Your task to perform on an android device: Open Google Maps and go to "Timeline" Image 0: 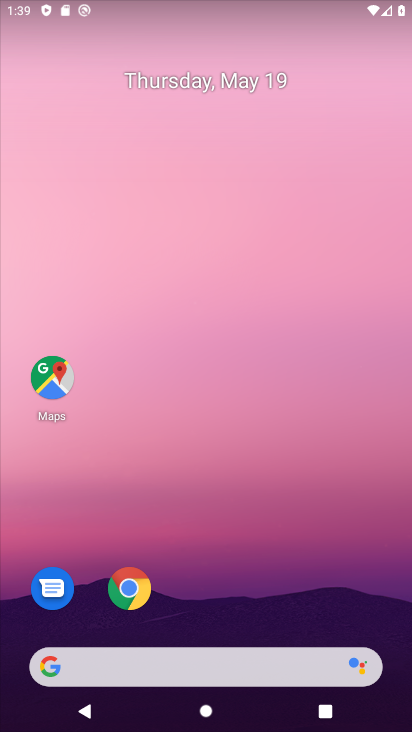
Step 0: click (45, 380)
Your task to perform on an android device: Open Google Maps and go to "Timeline" Image 1: 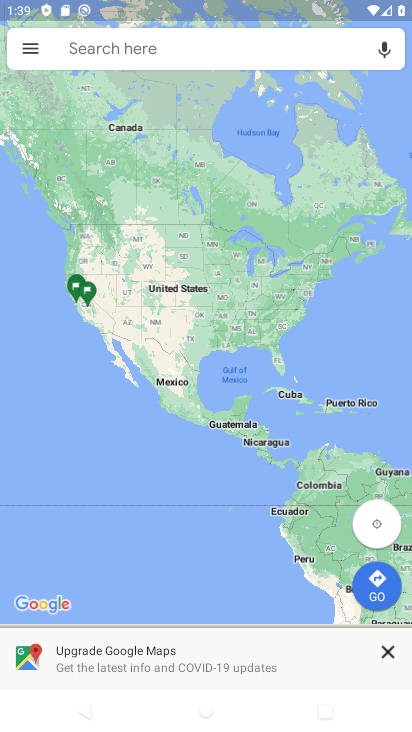
Step 1: click (26, 29)
Your task to perform on an android device: Open Google Maps and go to "Timeline" Image 2: 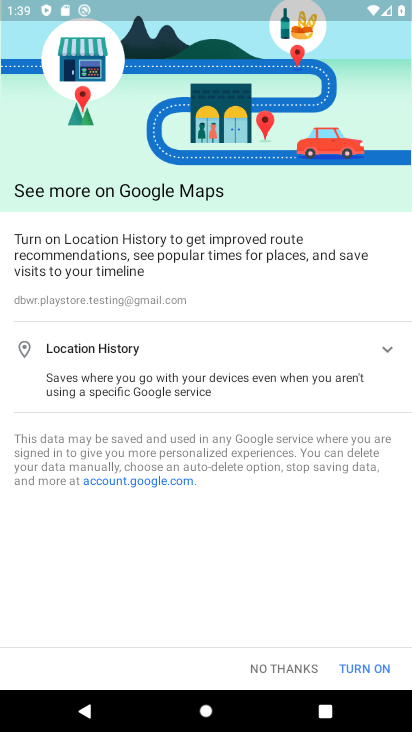
Step 2: click (265, 668)
Your task to perform on an android device: Open Google Maps and go to "Timeline" Image 3: 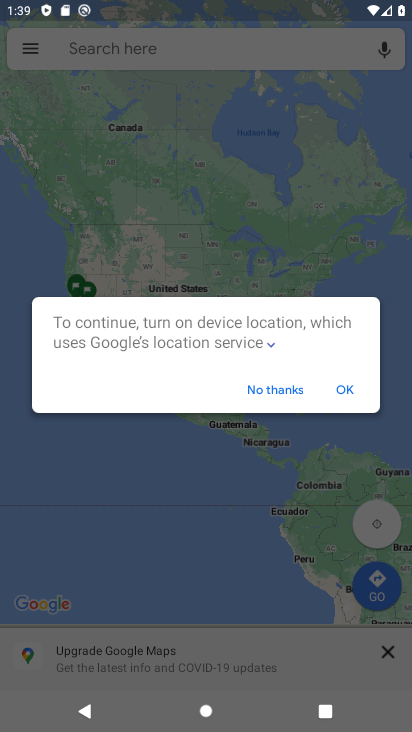
Step 3: click (275, 385)
Your task to perform on an android device: Open Google Maps and go to "Timeline" Image 4: 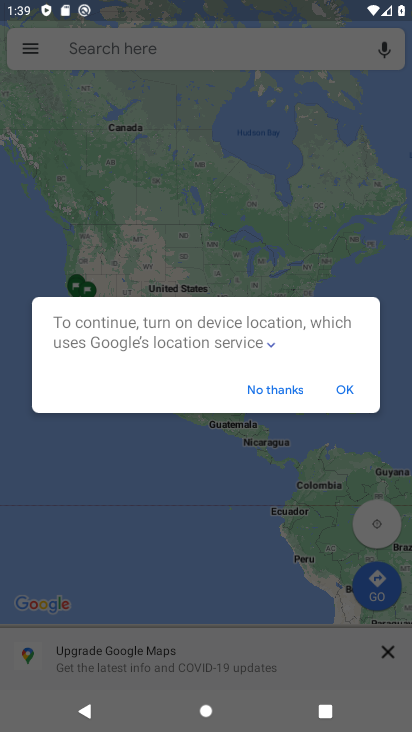
Step 4: click (261, 391)
Your task to perform on an android device: Open Google Maps and go to "Timeline" Image 5: 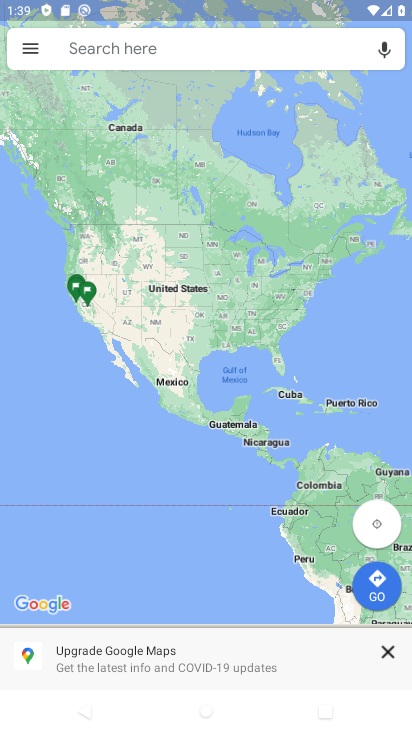
Step 5: click (33, 55)
Your task to perform on an android device: Open Google Maps and go to "Timeline" Image 6: 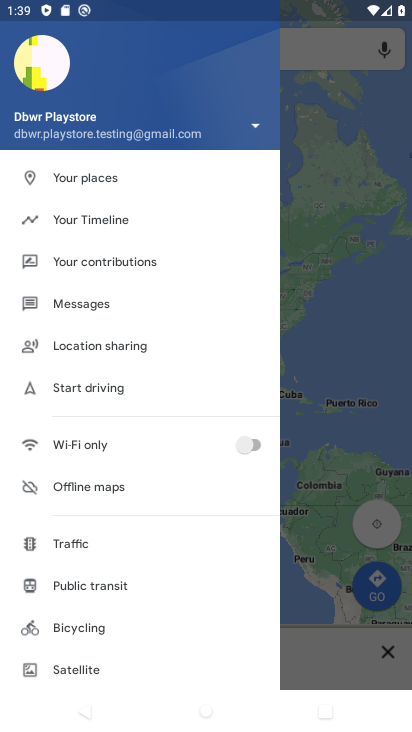
Step 6: click (112, 223)
Your task to perform on an android device: Open Google Maps and go to "Timeline" Image 7: 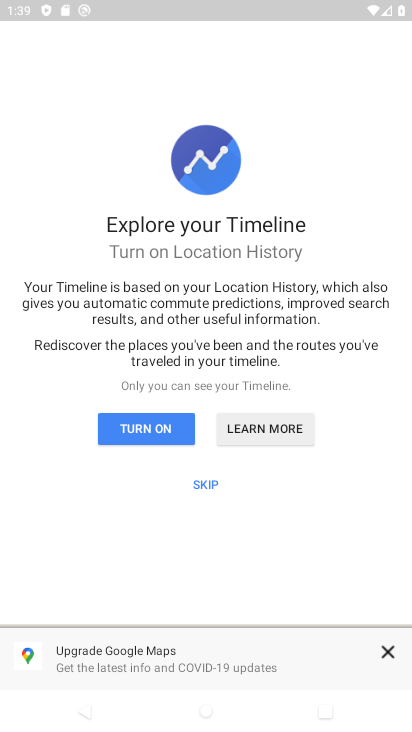
Step 7: click (192, 478)
Your task to perform on an android device: Open Google Maps and go to "Timeline" Image 8: 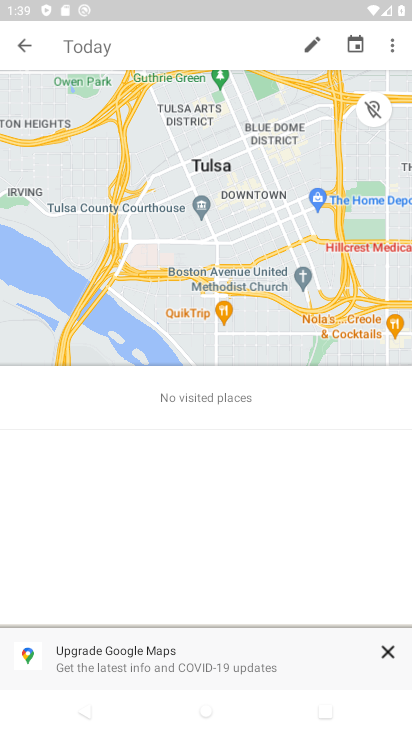
Step 8: task complete